Your task to perform on an android device: turn off airplane mode Image 0: 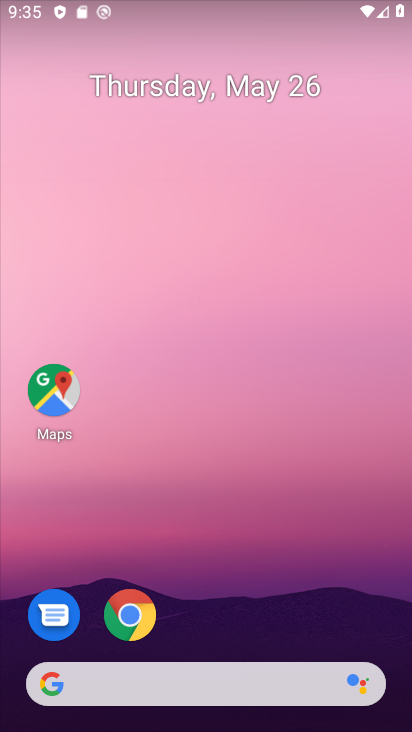
Step 0: drag from (289, 717) to (359, 193)
Your task to perform on an android device: turn off airplane mode Image 1: 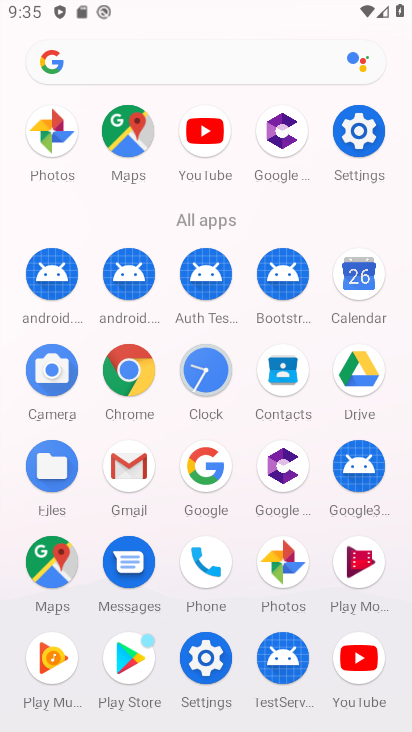
Step 1: click (355, 120)
Your task to perform on an android device: turn off airplane mode Image 2: 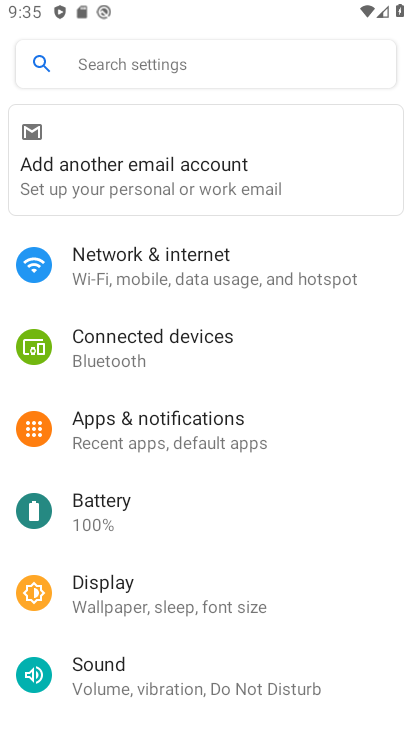
Step 2: click (139, 271)
Your task to perform on an android device: turn off airplane mode Image 3: 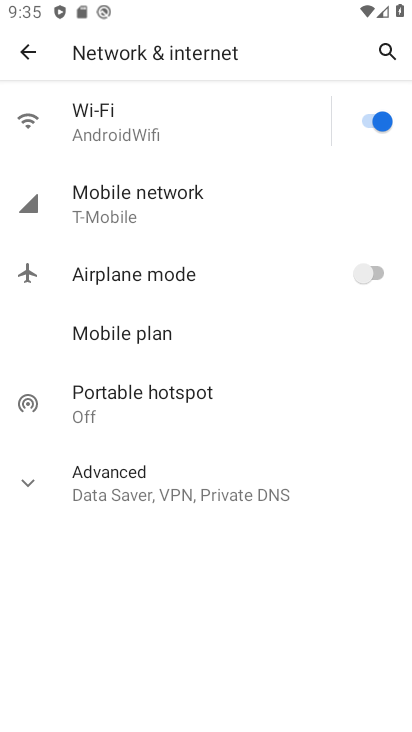
Step 3: click (350, 278)
Your task to perform on an android device: turn off airplane mode Image 4: 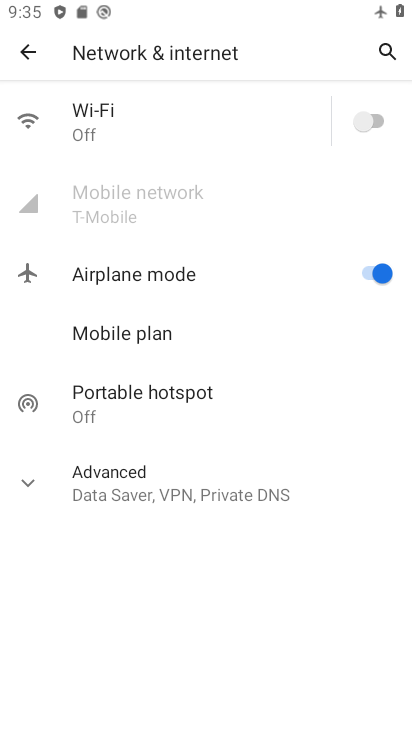
Step 4: click (350, 277)
Your task to perform on an android device: turn off airplane mode Image 5: 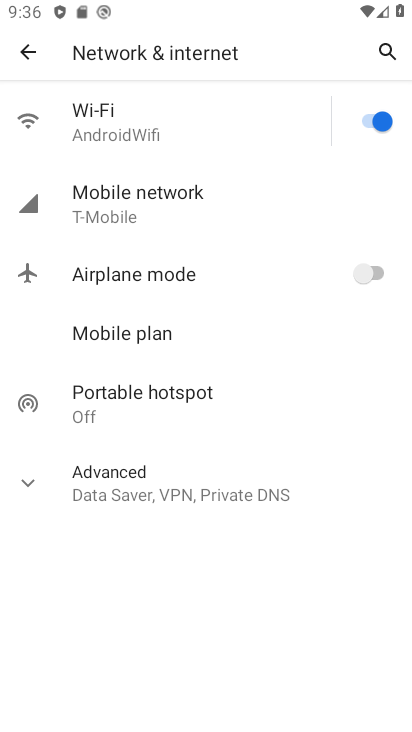
Step 5: task complete